Your task to perform on an android device: Open wifi settings Image 0: 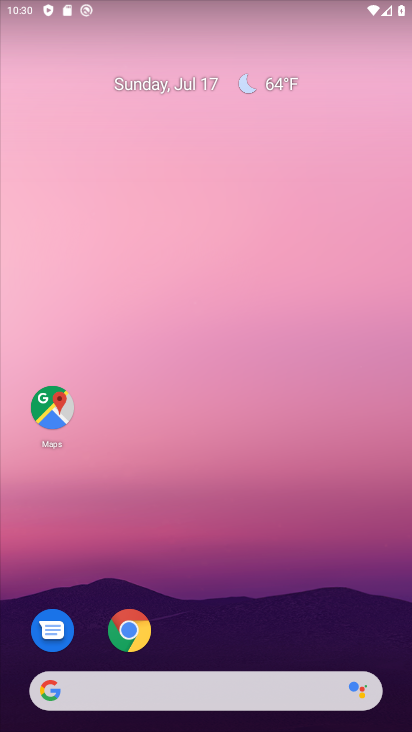
Step 0: drag from (295, 604) to (283, 238)
Your task to perform on an android device: Open wifi settings Image 1: 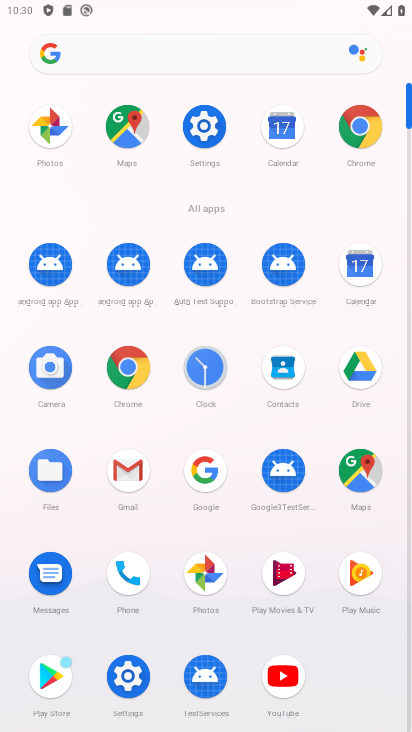
Step 1: click (128, 675)
Your task to perform on an android device: Open wifi settings Image 2: 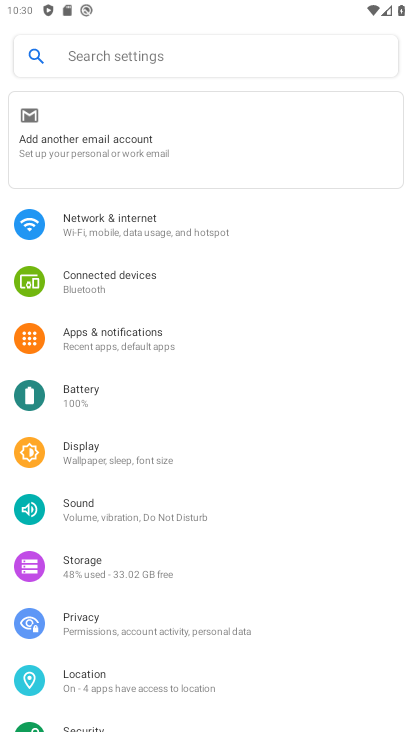
Step 2: click (99, 208)
Your task to perform on an android device: Open wifi settings Image 3: 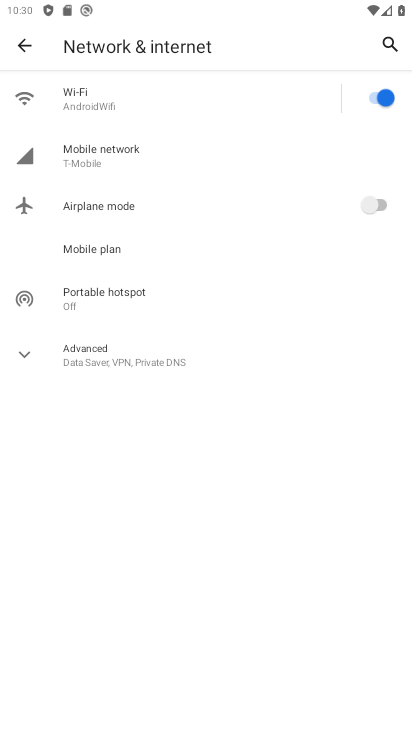
Step 3: click (74, 92)
Your task to perform on an android device: Open wifi settings Image 4: 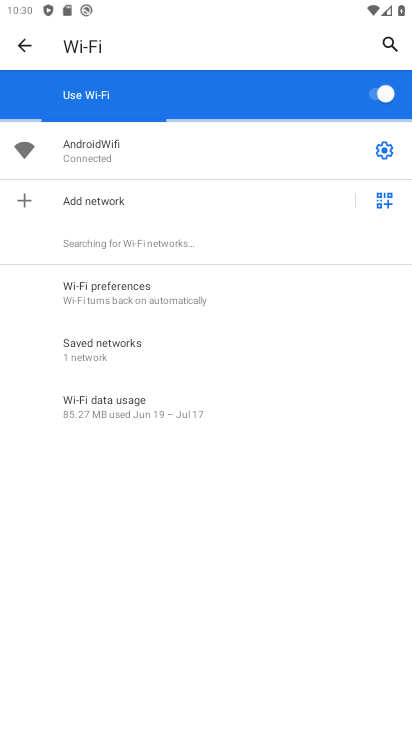
Step 4: click (380, 150)
Your task to perform on an android device: Open wifi settings Image 5: 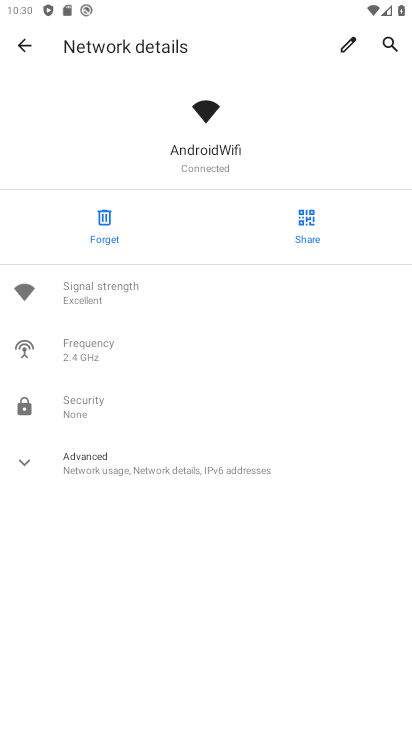
Step 5: task complete